Your task to perform on an android device: allow notifications from all sites in the chrome app Image 0: 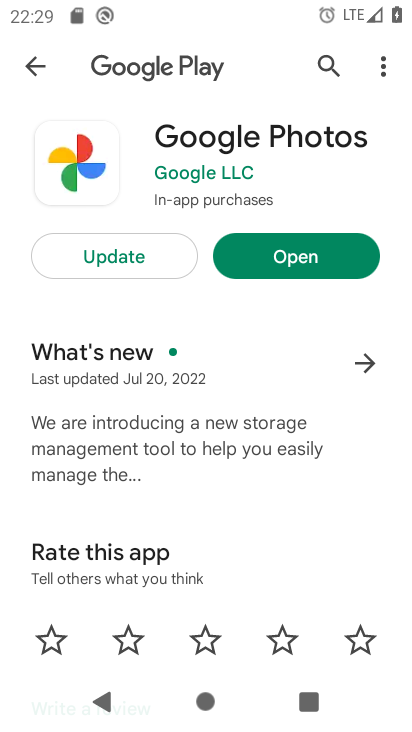
Step 0: press home button
Your task to perform on an android device: allow notifications from all sites in the chrome app Image 1: 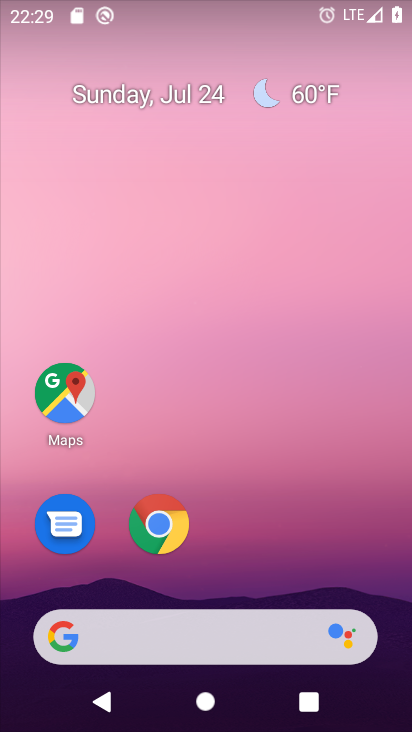
Step 1: click (174, 515)
Your task to perform on an android device: allow notifications from all sites in the chrome app Image 2: 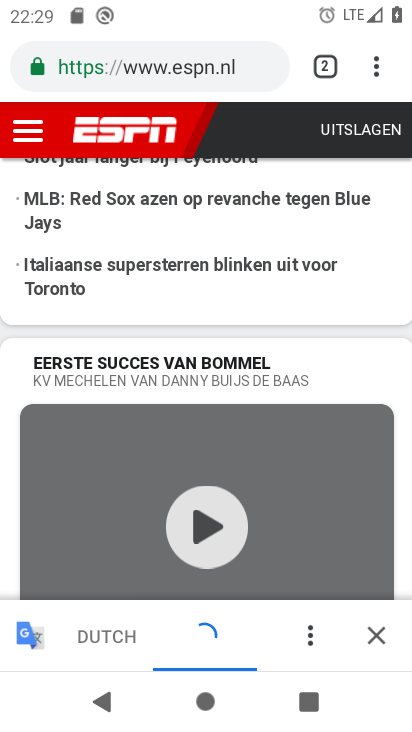
Step 2: press back button
Your task to perform on an android device: allow notifications from all sites in the chrome app Image 3: 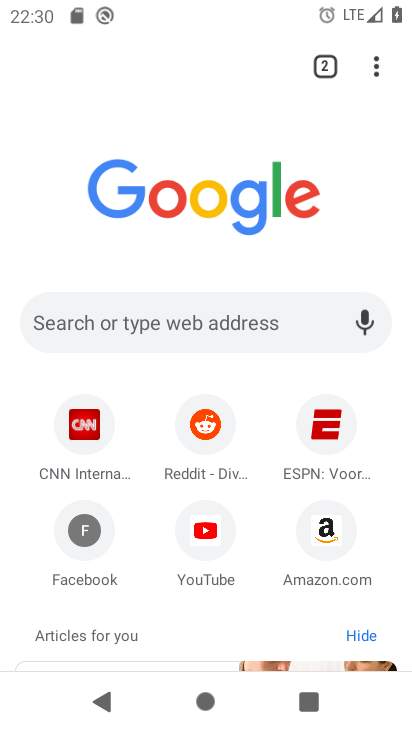
Step 3: click (374, 68)
Your task to perform on an android device: allow notifications from all sites in the chrome app Image 4: 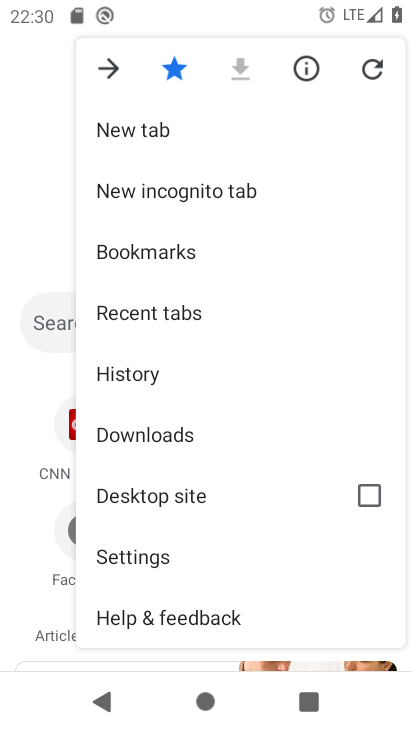
Step 4: click (374, 68)
Your task to perform on an android device: allow notifications from all sites in the chrome app Image 5: 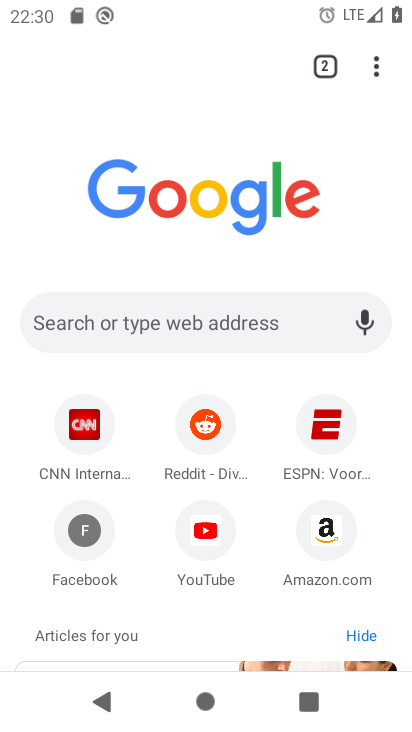
Step 5: click (374, 68)
Your task to perform on an android device: allow notifications from all sites in the chrome app Image 6: 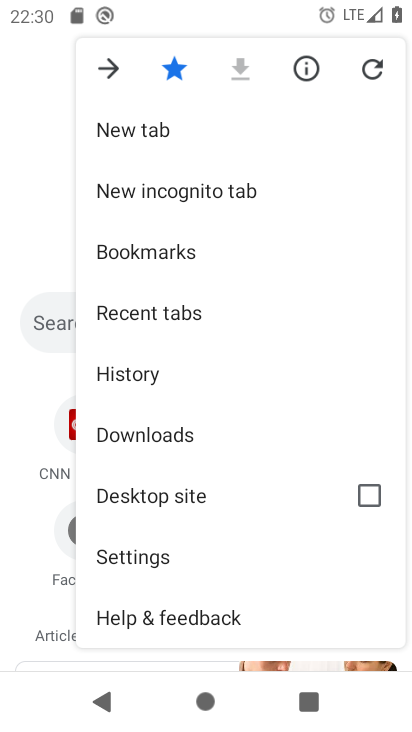
Step 6: click (138, 548)
Your task to perform on an android device: allow notifications from all sites in the chrome app Image 7: 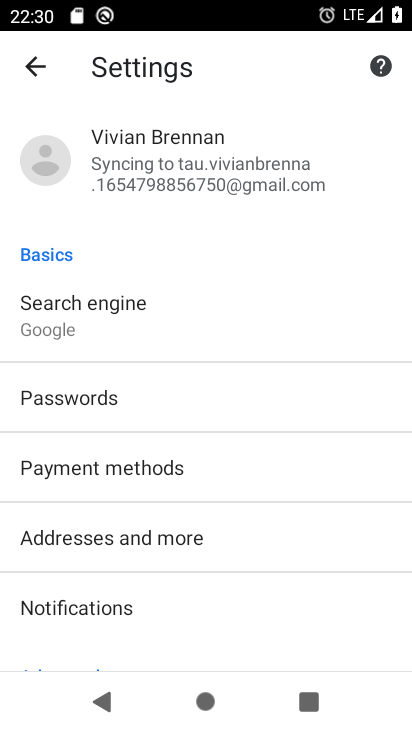
Step 7: drag from (239, 490) to (377, 231)
Your task to perform on an android device: allow notifications from all sites in the chrome app Image 8: 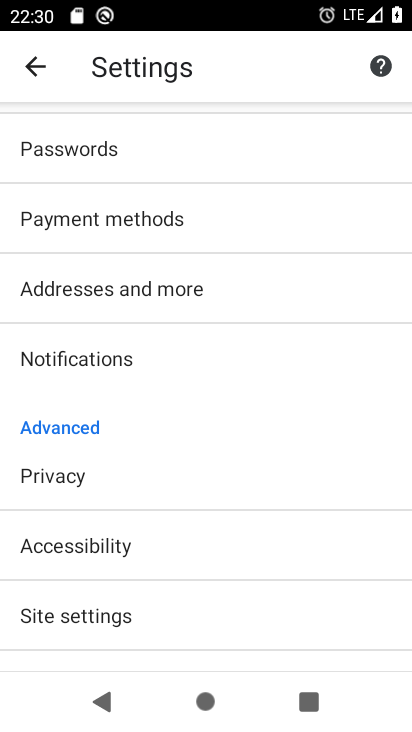
Step 8: click (303, 355)
Your task to perform on an android device: allow notifications from all sites in the chrome app Image 9: 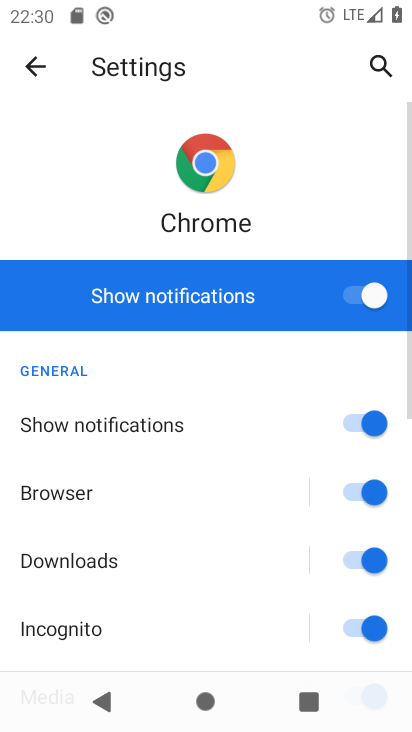
Step 9: task complete